Your task to perform on an android device: set the stopwatch Image 0: 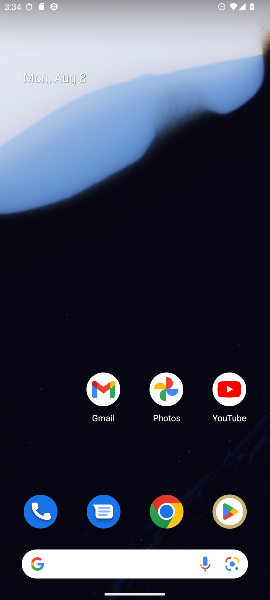
Step 0: drag from (216, 450) to (150, 4)
Your task to perform on an android device: set the stopwatch Image 1: 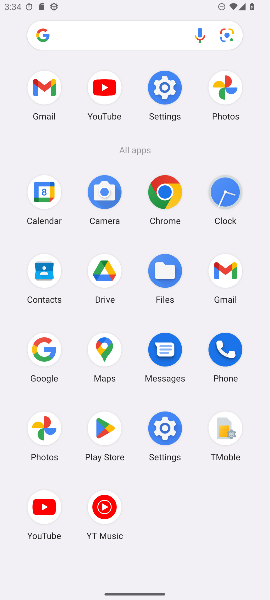
Step 1: click (226, 198)
Your task to perform on an android device: set the stopwatch Image 2: 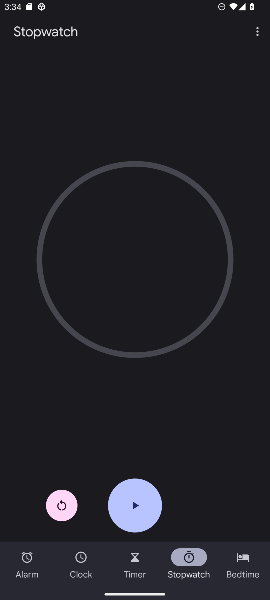
Step 2: task complete